Your task to perform on an android device: refresh tabs in the chrome app Image 0: 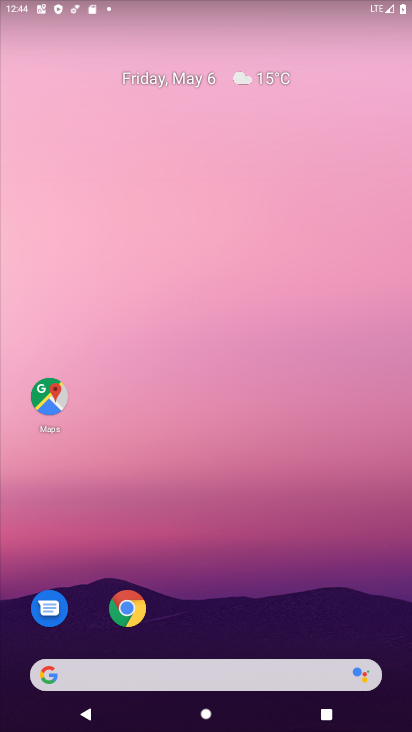
Step 0: drag from (186, 582) to (93, 8)
Your task to perform on an android device: refresh tabs in the chrome app Image 1: 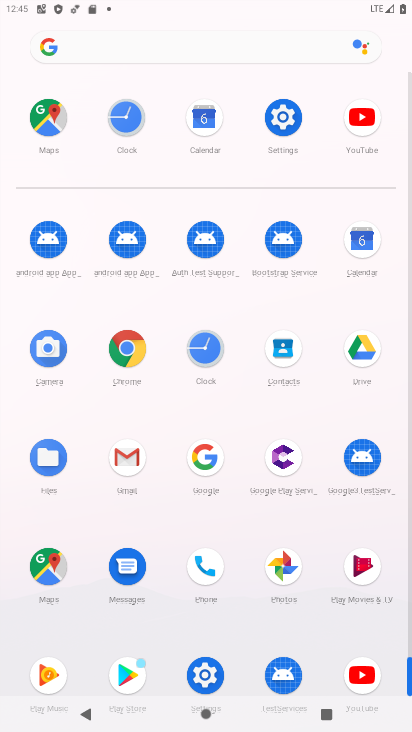
Step 1: click (125, 345)
Your task to perform on an android device: refresh tabs in the chrome app Image 2: 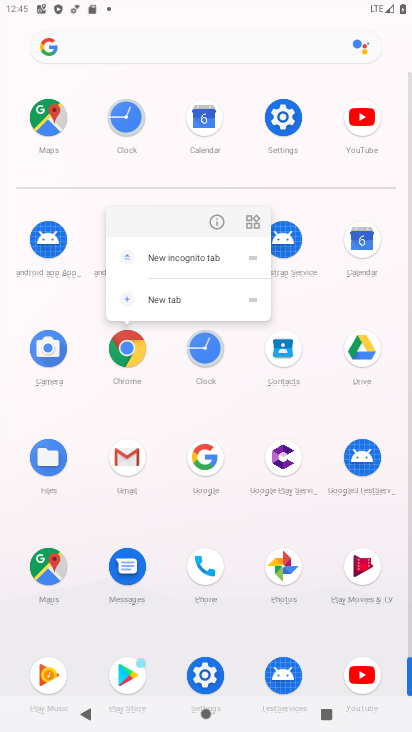
Step 2: click (220, 219)
Your task to perform on an android device: refresh tabs in the chrome app Image 3: 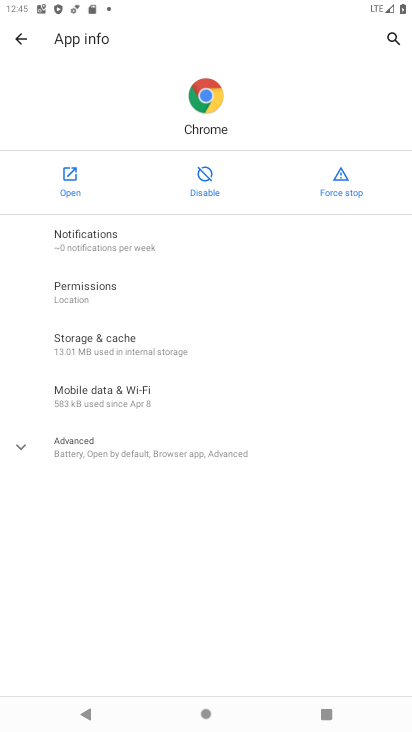
Step 3: click (62, 172)
Your task to perform on an android device: refresh tabs in the chrome app Image 4: 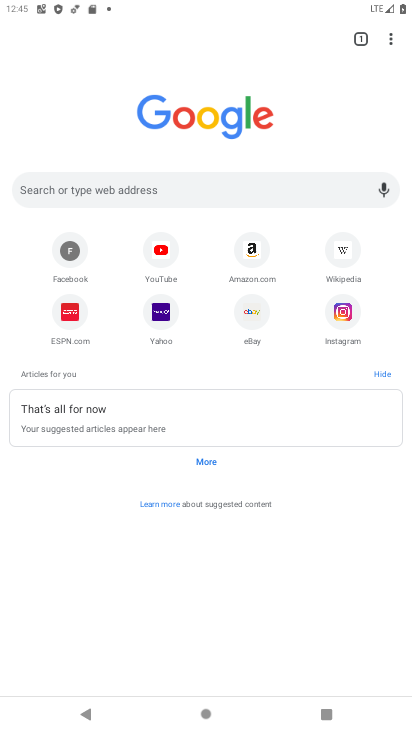
Step 4: click (399, 14)
Your task to perform on an android device: refresh tabs in the chrome app Image 5: 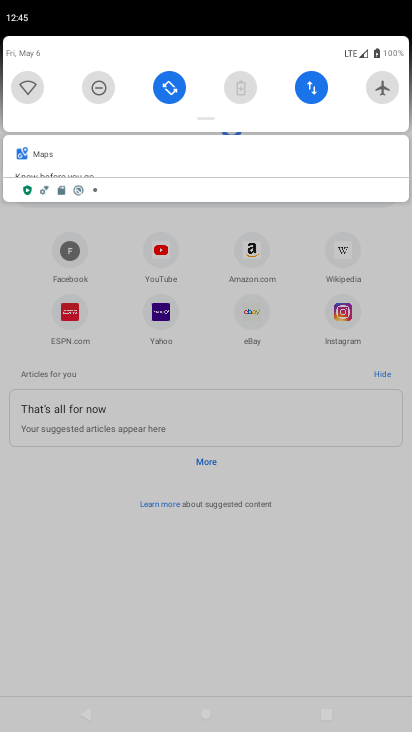
Step 5: click (390, 27)
Your task to perform on an android device: refresh tabs in the chrome app Image 6: 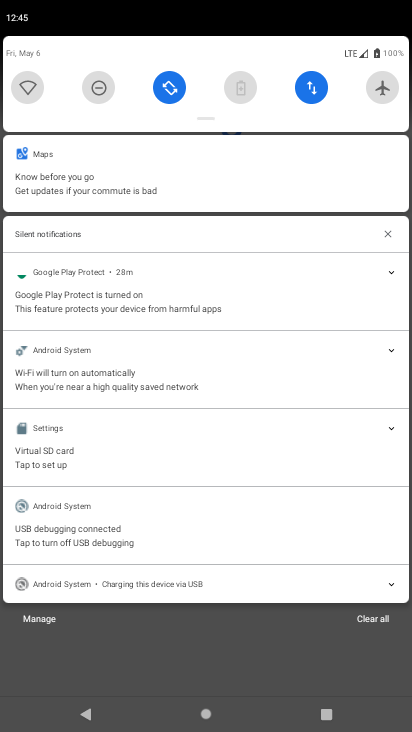
Step 6: press back button
Your task to perform on an android device: refresh tabs in the chrome app Image 7: 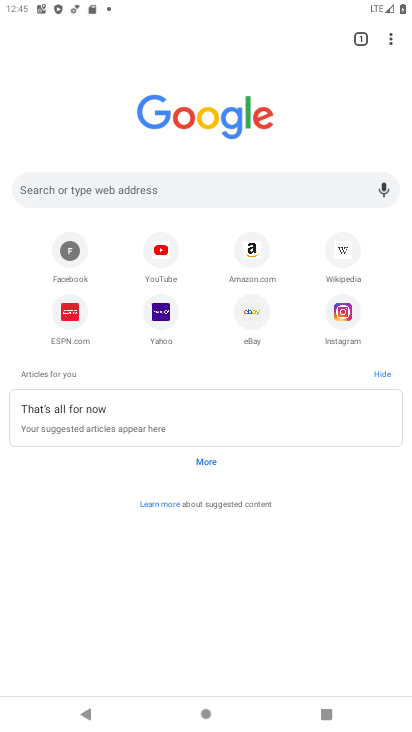
Step 7: click (391, 36)
Your task to perform on an android device: refresh tabs in the chrome app Image 8: 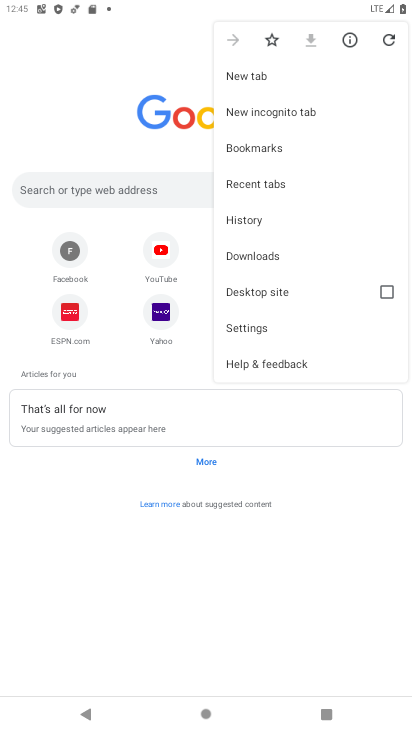
Step 8: click (393, 38)
Your task to perform on an android device: refresh tabs in the chrome app Image 9: 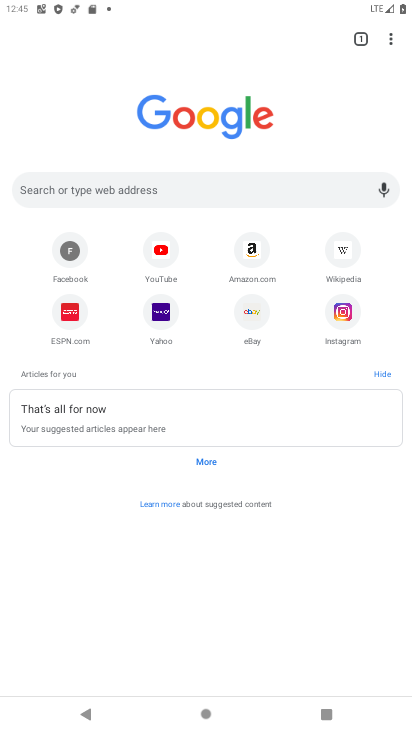
Step 9: task complete